Your task to perform on an android device: Go to internet settings Image 0: 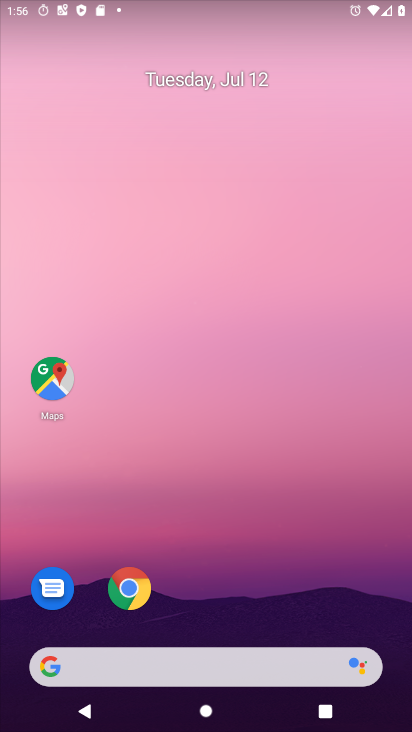
Step 0: drag from (176, 625) to (45, 721)
Your task to perform on an android device: Go to internet settings Image 1: 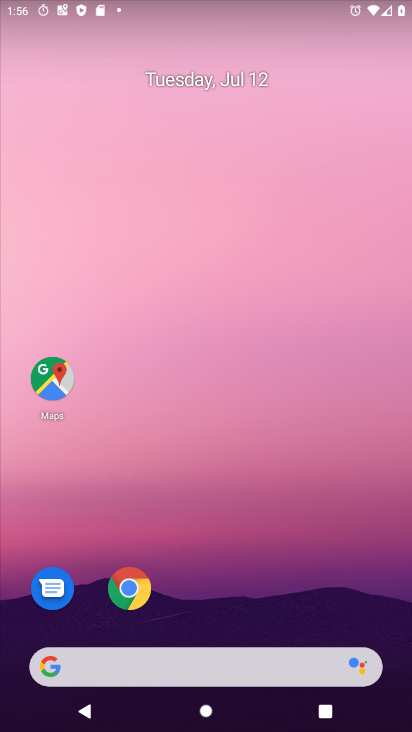
Step 1: drag from (205, 651) to (381, 75)
Your task to perform on an android device: Go to internet settings Image 2: 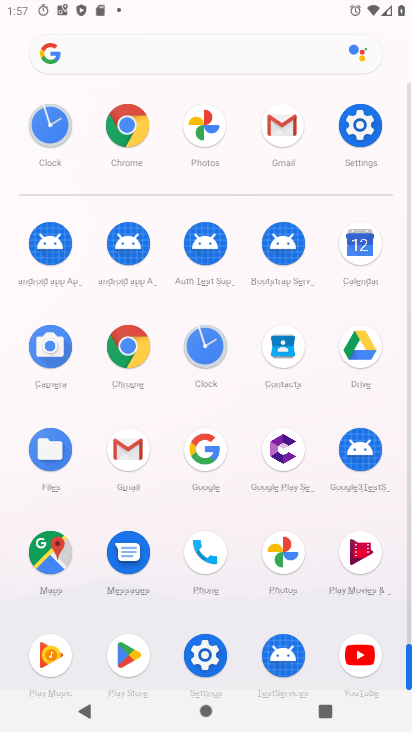
Step 2: click (196, 651)
Your task to perform on an android device: Go to internet settings Image 3: 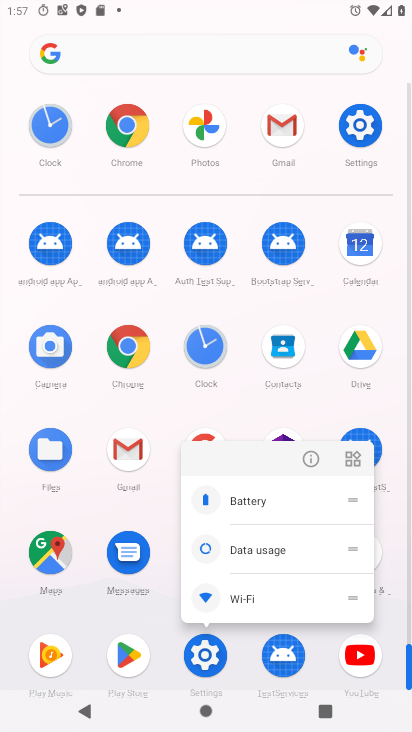
Step 3: click (309, 463)
Your task to perform on an android device: Go to internet settings Image 4: 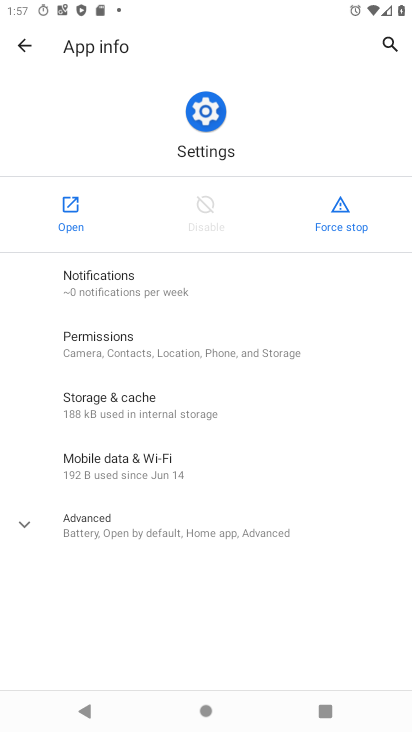
Step 4: click (91, 206)
Your task to perform on an android device: Go to internet settings Image 5: 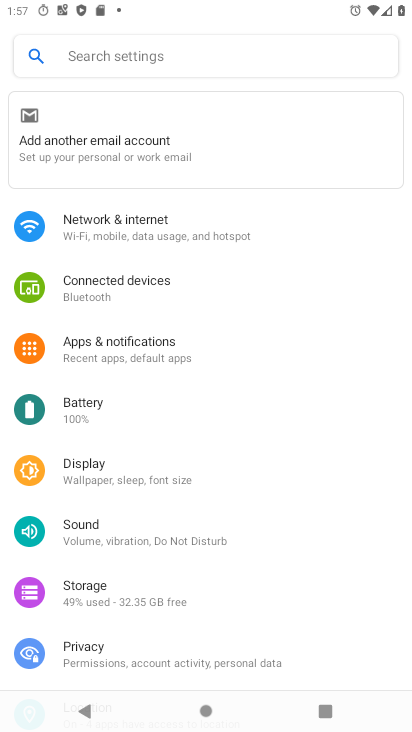
Step 5: click (105, 223)
Your task to perform on an android device: Go to internet settings Image 6: 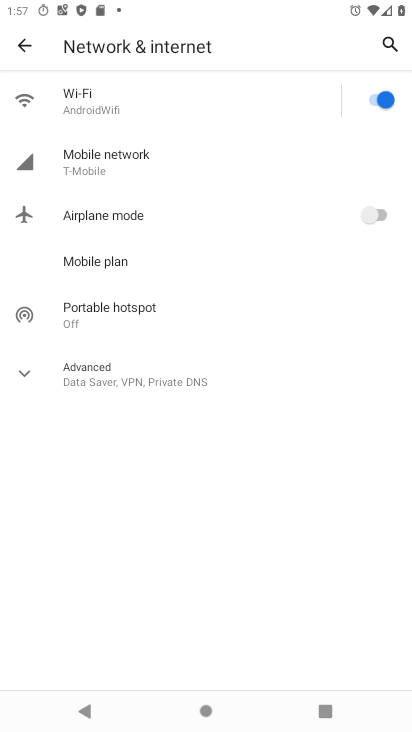
Step 6: task complete